Your task to perform on an android device: Open calendar and show me the third week of next month Image 0: 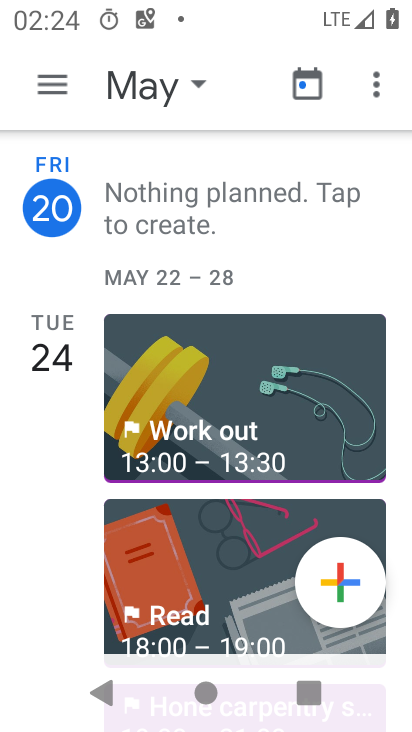
Step 0: press home button
Your task to perform on an android device: Open calendar and show me the third week of next month Image 1: 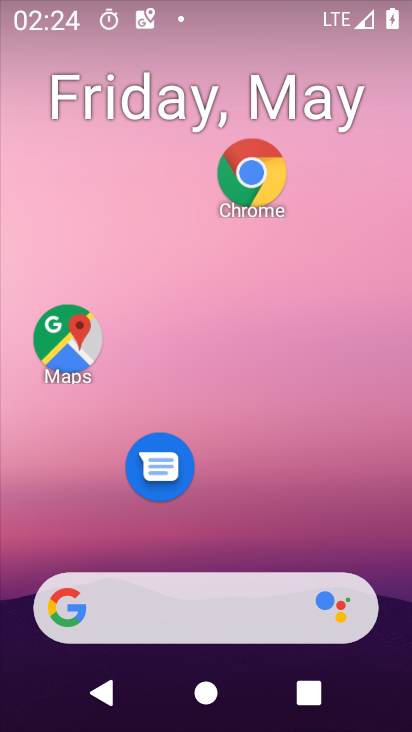
Step 1: drag from (272, 642) to (279, 280)
Your task to perform on an android device: Open calendar and show me the third week of next month Image 2: 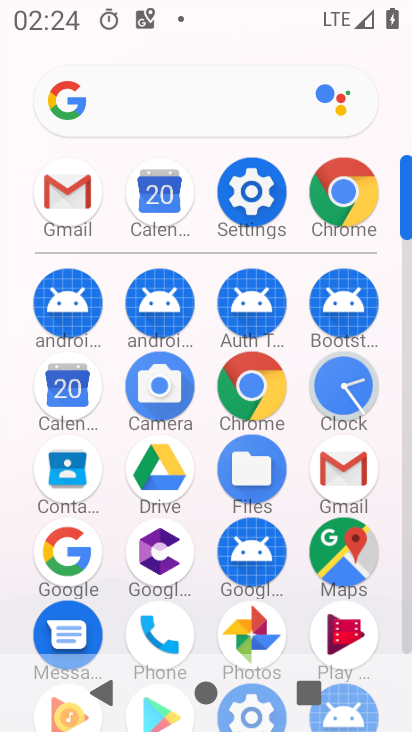
Step 2: click (65, 389)
Your task to perform on an android device: Open calendar and show me the third week of next month Image 3: 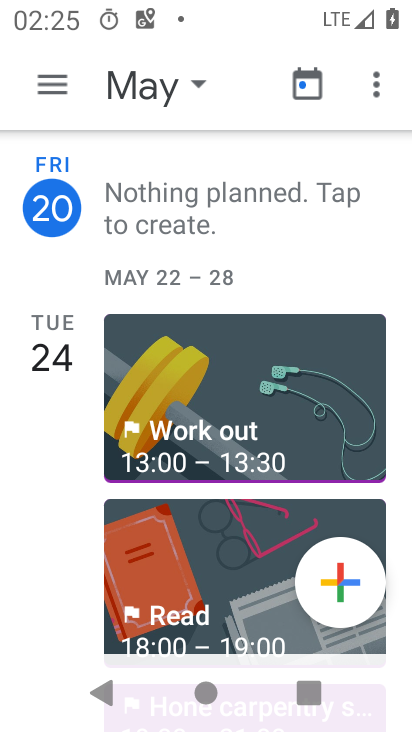
Step 3: click (55, 99)
Your task to perform on an android device: Open calendar and show me the third week of next month Image 4: 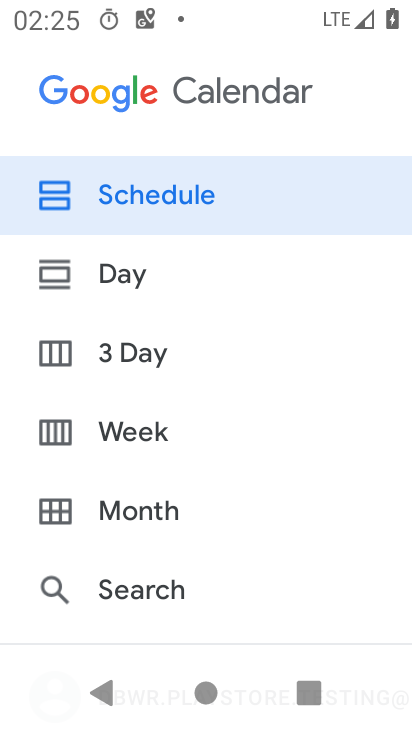
Step 4: click (174, 507)
Your task to perform on an android device: Open calendar and show me the third week of next month Image 5: 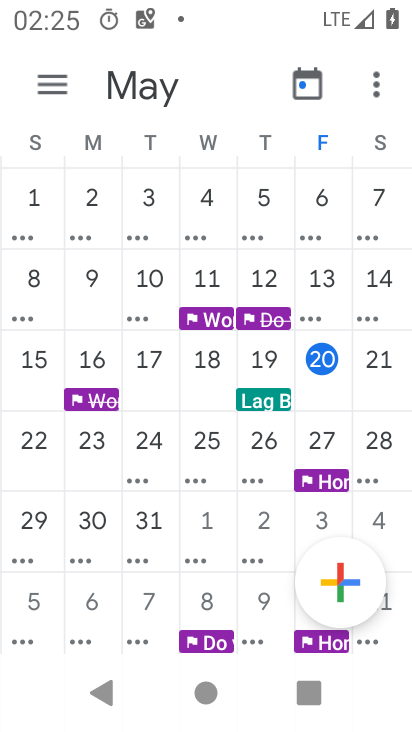
Step 5: drag from (394, 418) to (2, 381)
Your task to perform on an android device: Open calendar and show me the third week of next month Image 6: 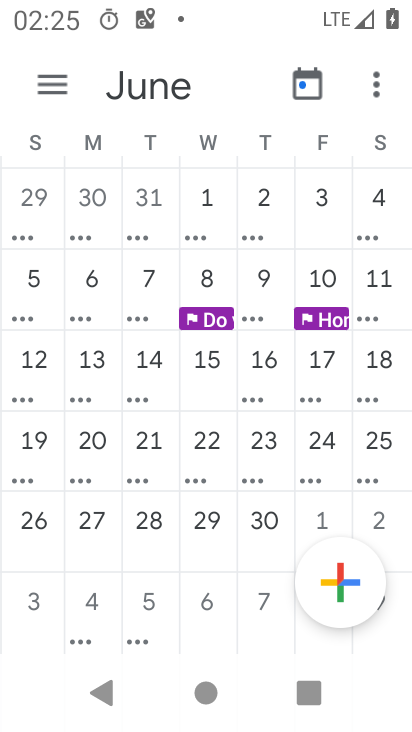
Step 6: click (87, 472)
Your task to perform on an android device: Open calendar and show me the third week of next month Image 7: 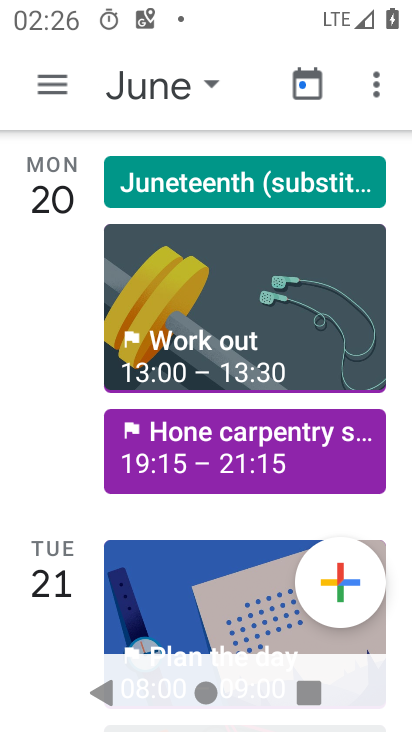
Step 7: task complete